Your task to perform on an android device: Show me the alarms in the clock app Image 0: 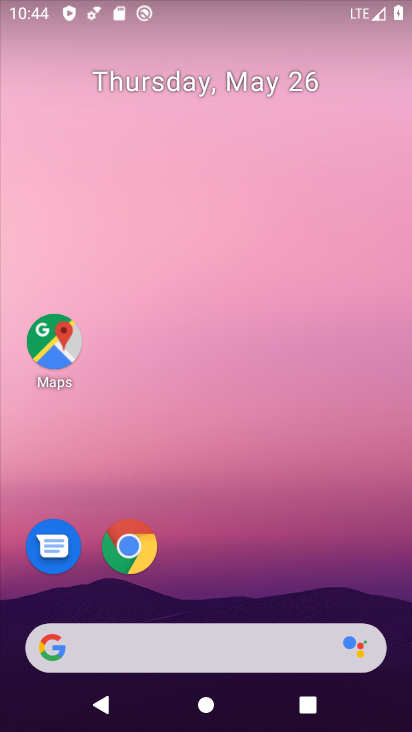
Step 0: drag from (302, 457) to (323, 78)
Your task to perform on an android device: Show me the alarms in the clock app Image 1: 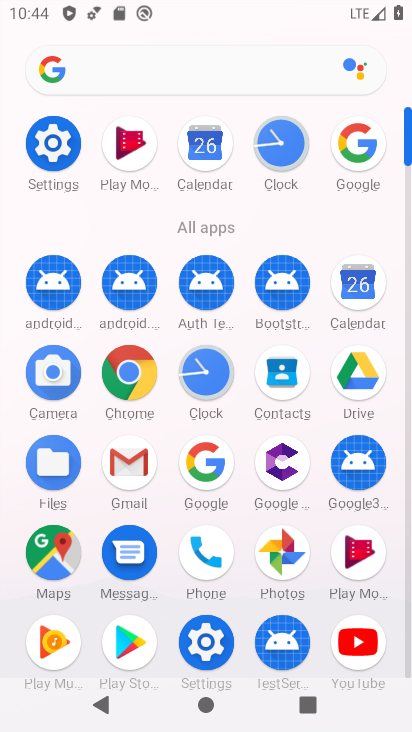
Step 1: click (201, 372)
Your task to perform on an android device: Show me the alarms in the clock app Image 2: 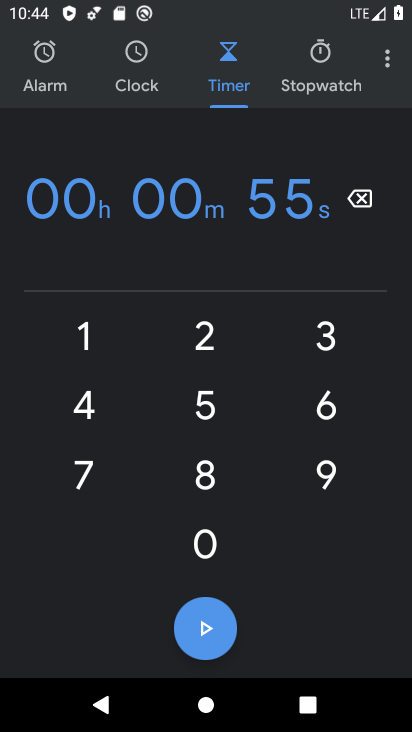
Step 2: click (38, 62)
Your task to perform on an android device: Show me the alarms in the clock app Image 3: 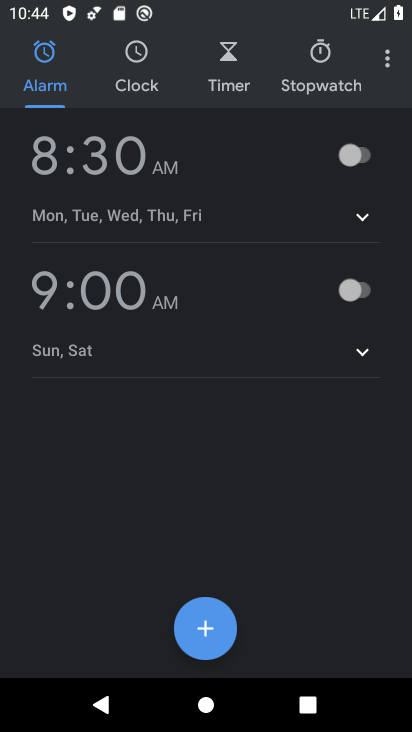
Step 3: task complete